Your task to perform on an android device: Open privacy settings Image 0: 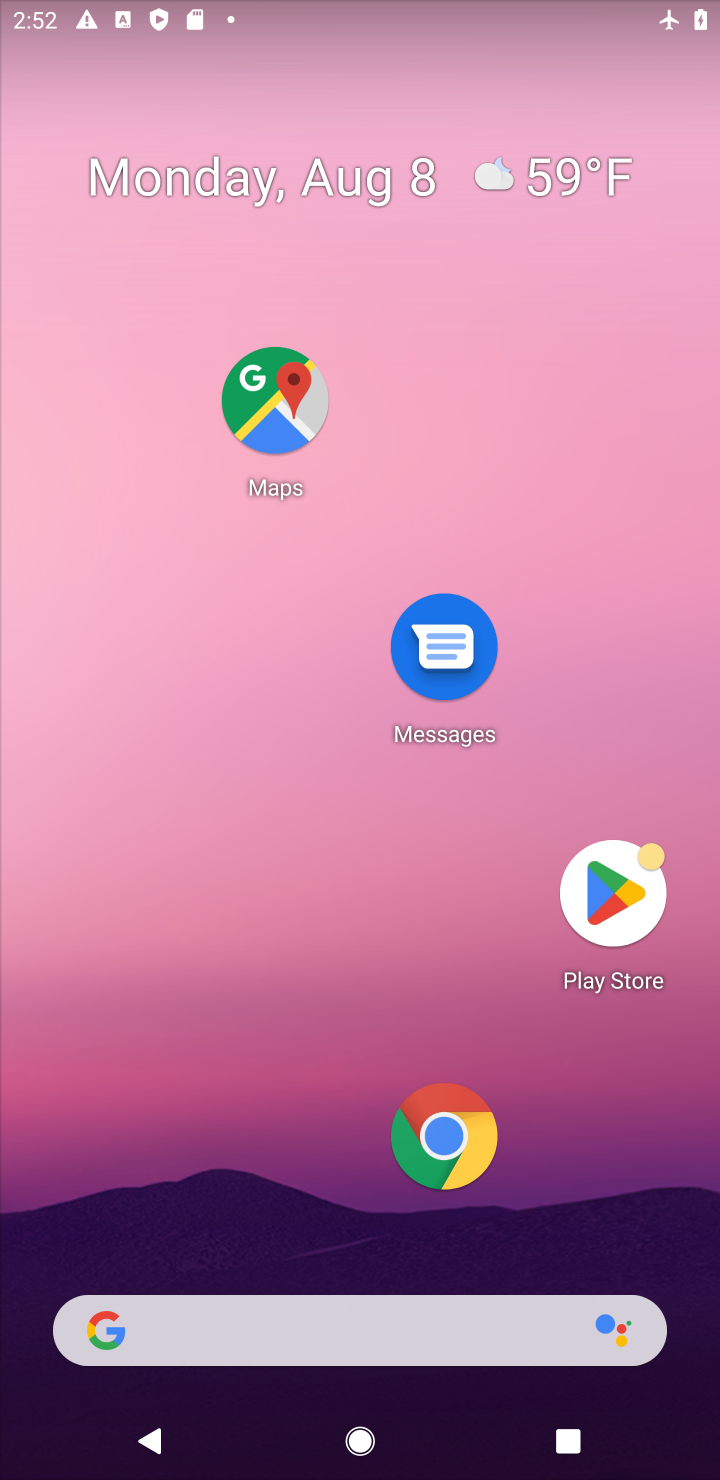
Step 0: click (148, 979)
Your task to perform on an android device: Open privacy settings Image 1: 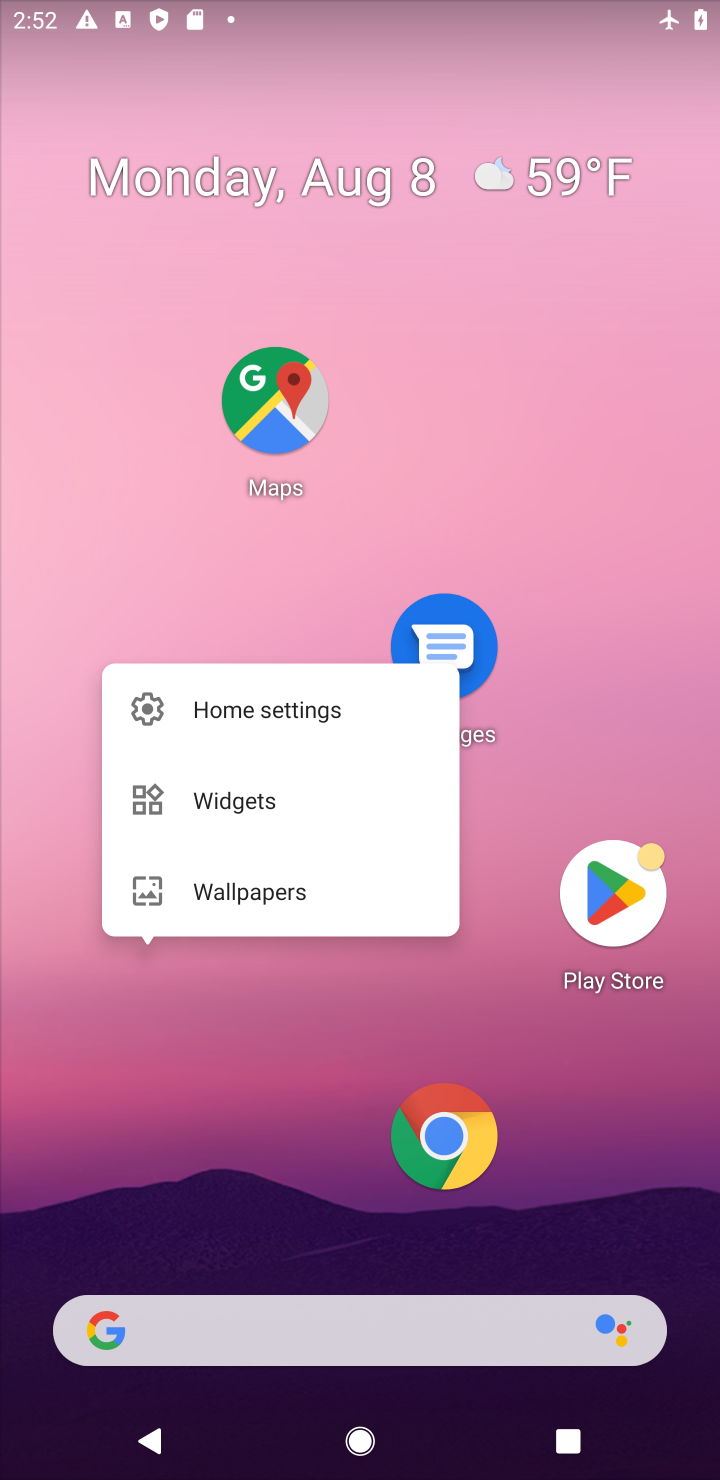
Step 1: task complete